Your task to perform on an android device: Go to Yahoo.com Image 0: 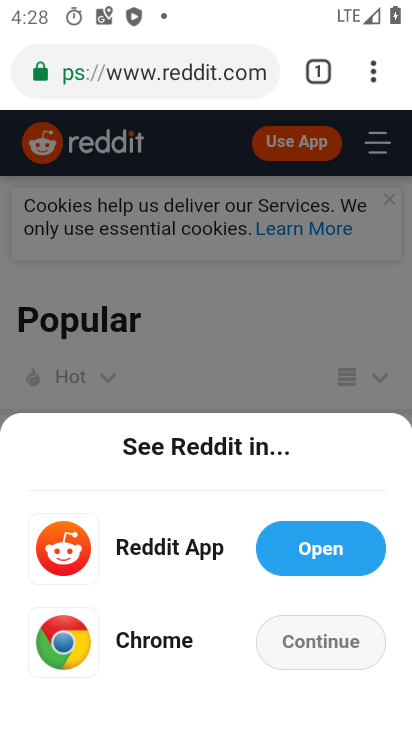
Step 0: press home button
Your task to perform on an android device: Go to Yahoo.com Image 1: 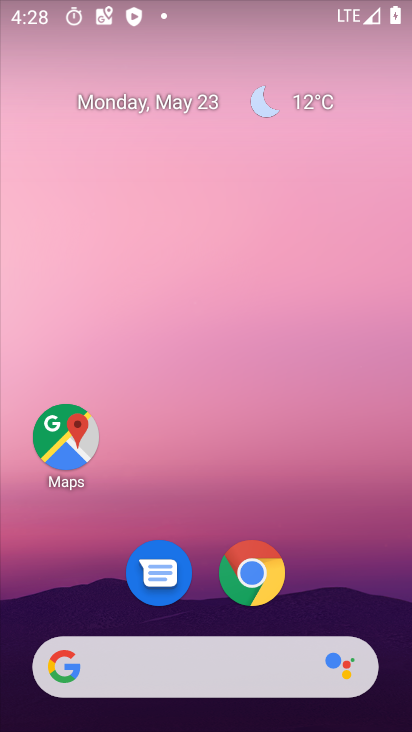
Step 1: click (246, 565)
Your task to perform on an android device: Go to Yahoo.com Image 2: 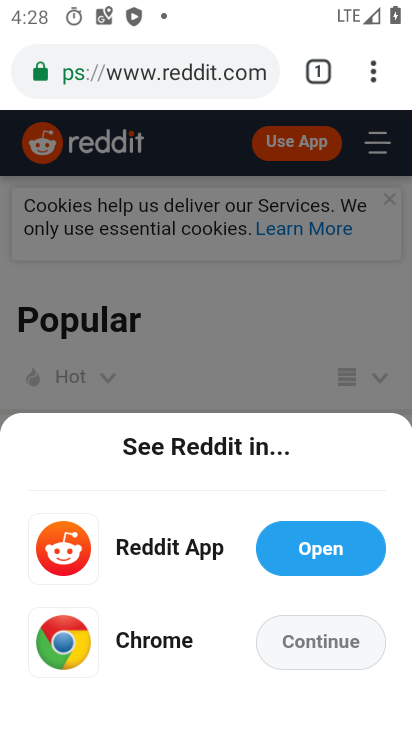
Step 2: click (326, 65)
Your task to perform on an android device: Go to Yahoo.com Image 3: 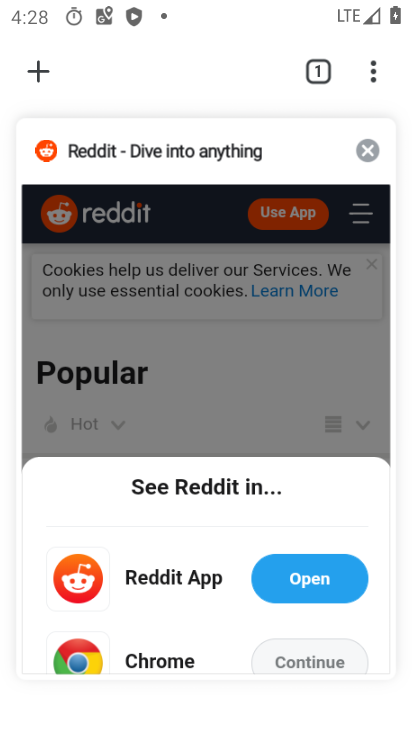
Step 3: click (43, 79)
Your task to perform on an android device: Go to Yahoo.com Image 4: 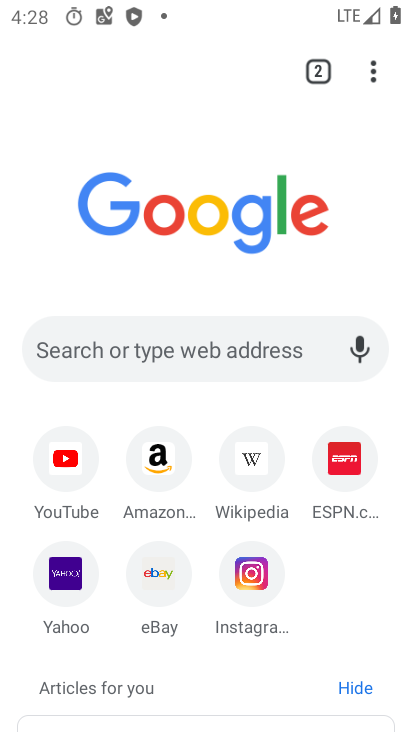
Step 4: click (76, 560)
Your task to perform on an android device: Go to Yahoo.com Image 5: 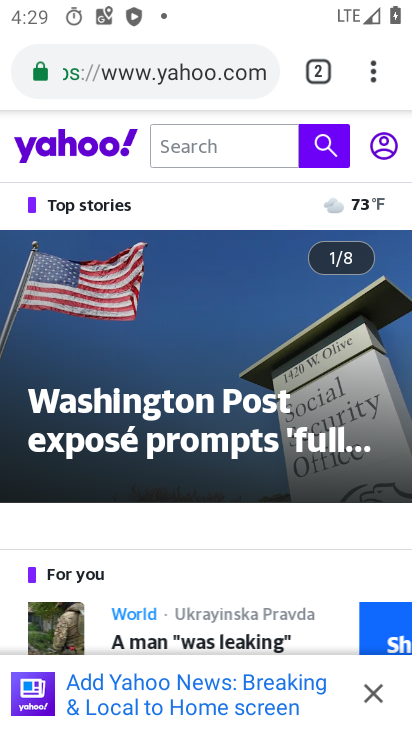
Step 5: task complete